Your task to perform on an android device: check battery use Image 0: 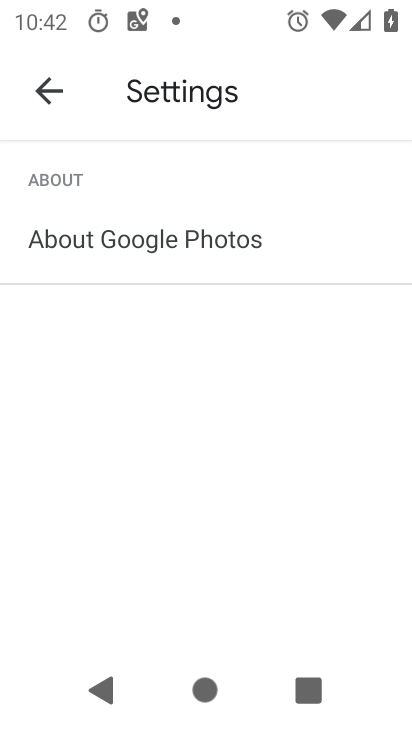
Step 0: press home button
Your task to perform on an android device: check battery use Image 1: 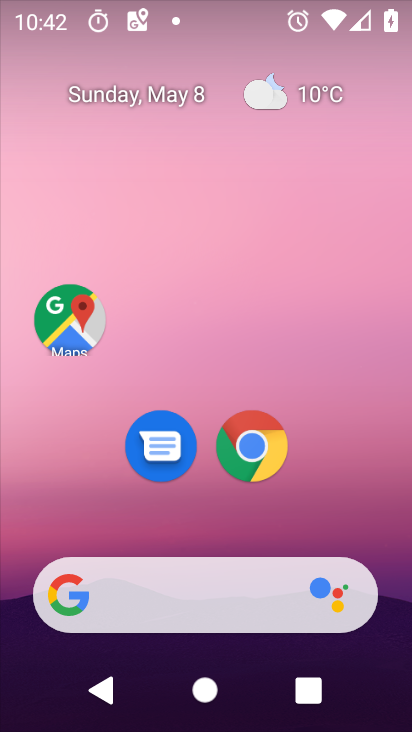
Step 1: drag from (353, 508) to (378, 7)
Your task to perform on an android device: check battery use Image 2: 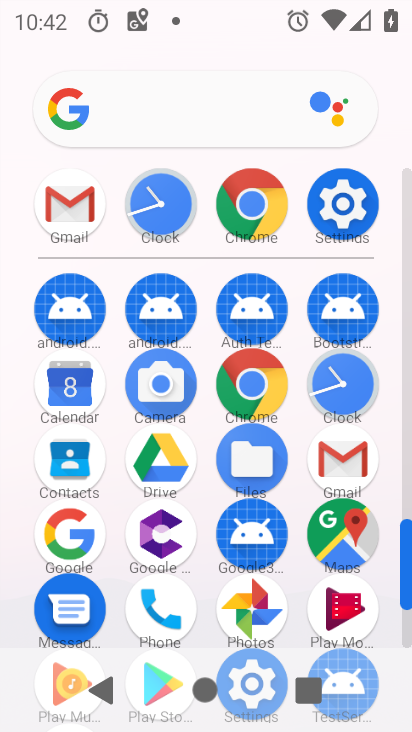
Step 2: click (348, 204)
Your task to perform on an android device: check battery use Image 3: 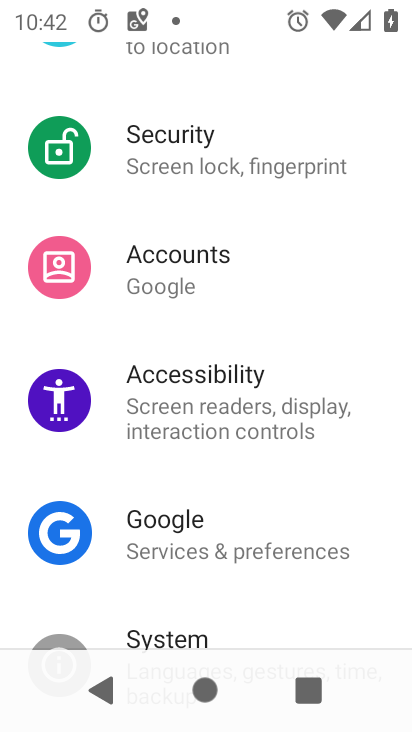
Step 3: drag from (357, 269) to (376, 553)
Your task to perform on an android device: check battery use Image 4: 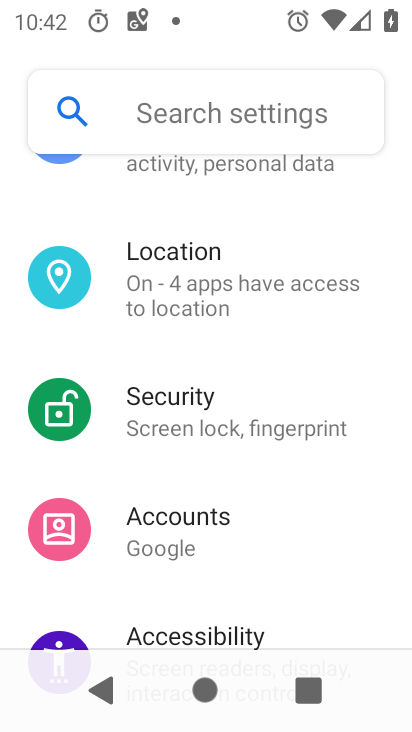
Step 4: drag from (376, 306) to (380, 611)
Your task to perform on an android device: check battery use Image 5: 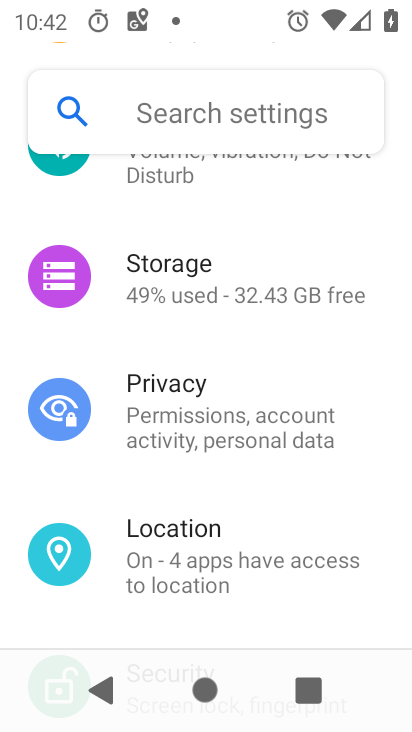
Step 5: drag from (380, 278) to (381, 545)
Your task to perform on an android device: check battery use Image 6: 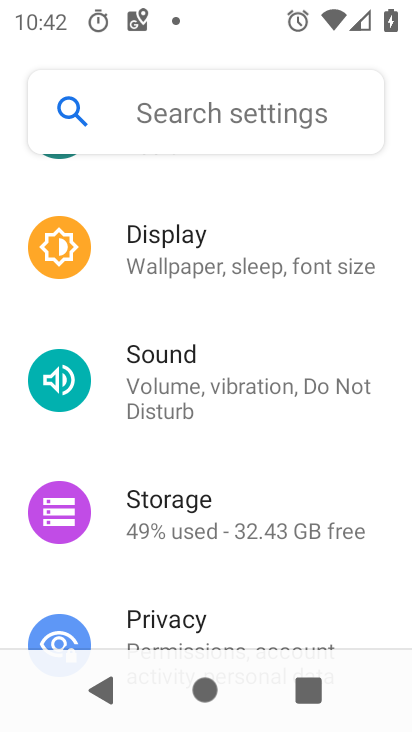
Step 6: drag from (364, 300) to (365, 603)
Your task to perform on an android device: check battery use Image 7: 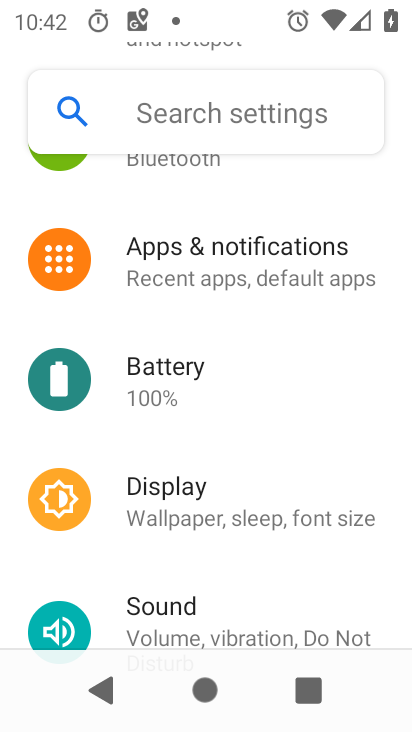
Step 7: click (157, 390)
Your task to perform on an android device: check battery use Image 8: 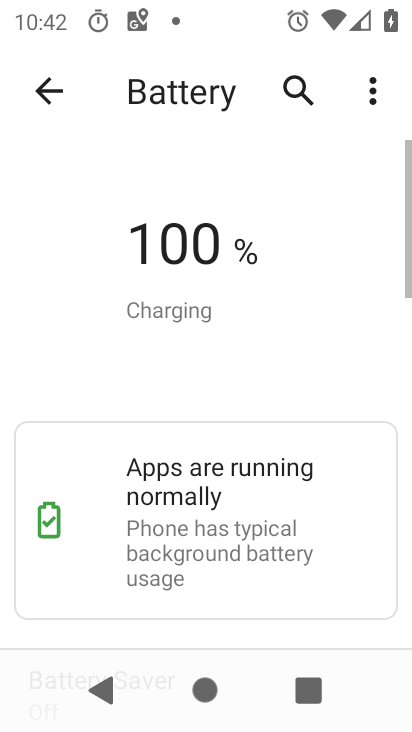
Step 8: click (370, 81)
Your task to perform on an android device: check battery use Image 9: 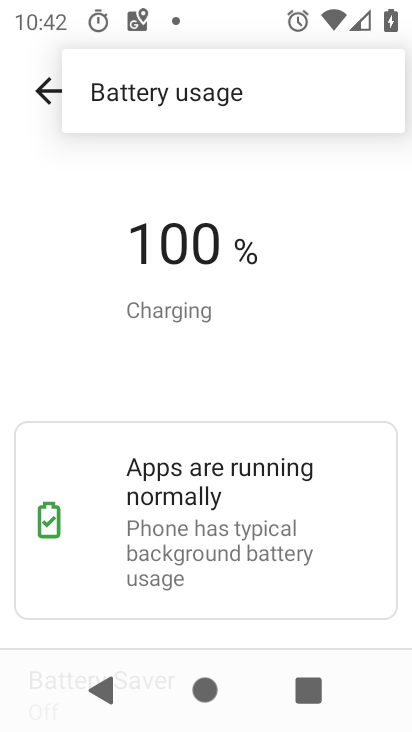
Step 9: click (209, 95)
Your task to perform on an android device: check battery use Image 10: 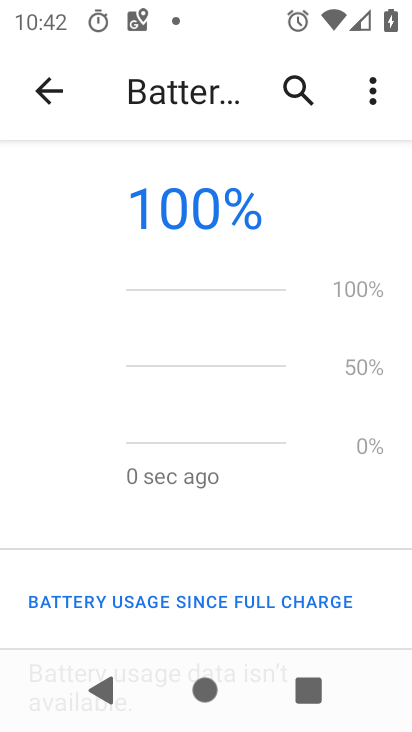
Step 10: task complete